Your task to perform on an android device: stop showing notifications on the lock screen Image 0: 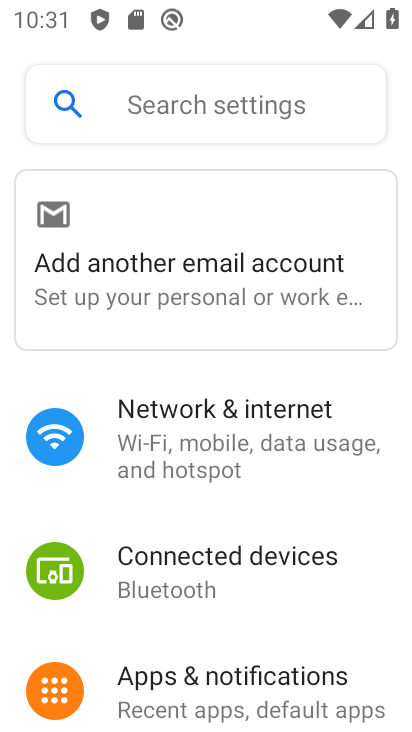
Step 0: drag from (382, 617) to (350, 185)
Your task to perform on an android device: stop showing notifications on the lock screen Image 1: 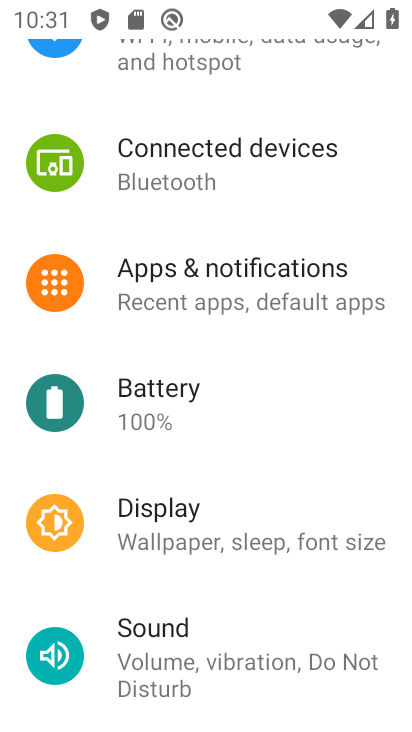
Step 1: drag from (363, 559) to (338, 197)
Your task to perform on an android device: stop showing notifications on the lock screen Image 2: 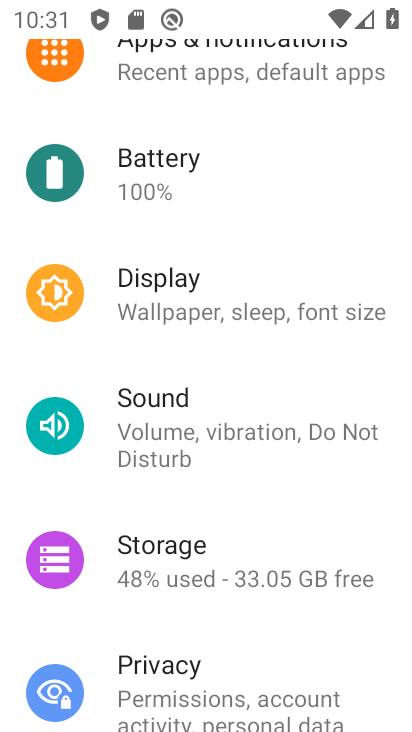
Step 2: drag from (359, 206) to (354, 543)
Your task to perform on an android device: stop showing notifications on the lock screen Image 3: 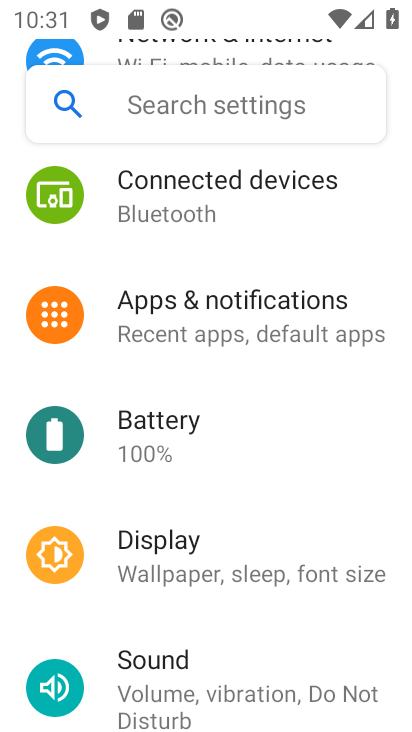
Step 3: click (193, 278)
Your task to perform on an android device: stop showing notifications on the lock screen Image 4: 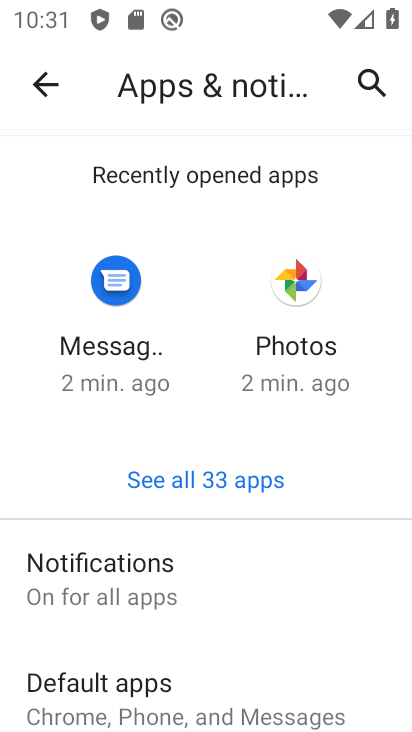
Step 4: click (136, 587)
Your task to perform on an android device: stop showing notifications on the lock screen Image 5: 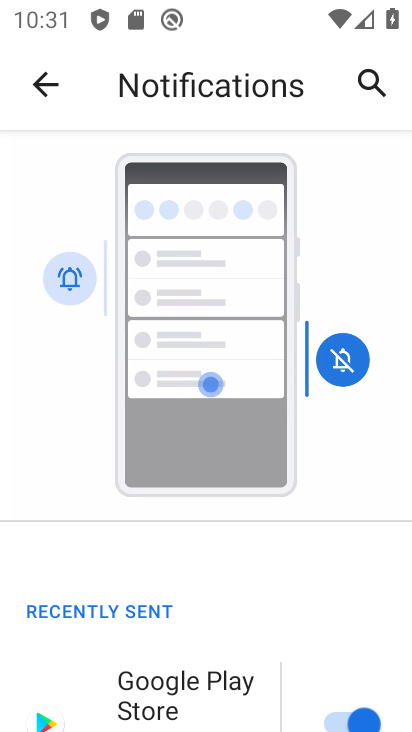
Step 5: drag from (273, 549) to (323, 137)
Your task to perform on an android device: stop showing notifications on the lock screen Image 6: 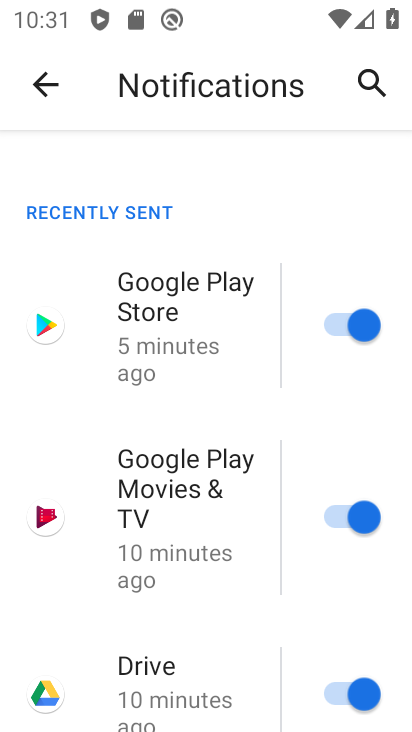
Step 6: drag from (259, 547) to (298, 173)
Your task to perform on an android device: stop showing notifications on the lock screen Image 7: 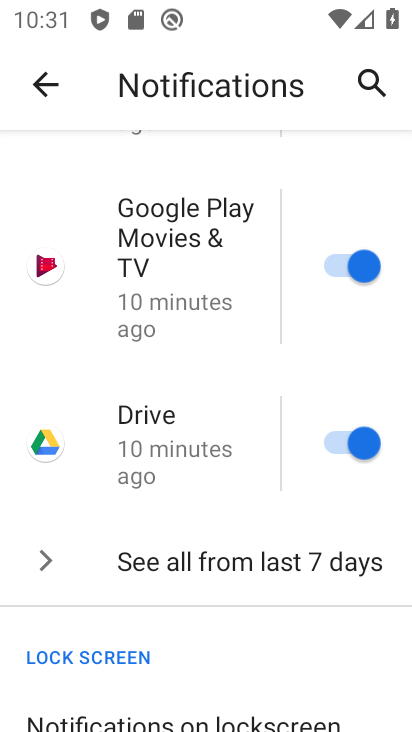
Step 7: drag from (263, 664) to (300, 131)
Your task to perform on an android device: stop showing notifications on the lock screen Image 8: 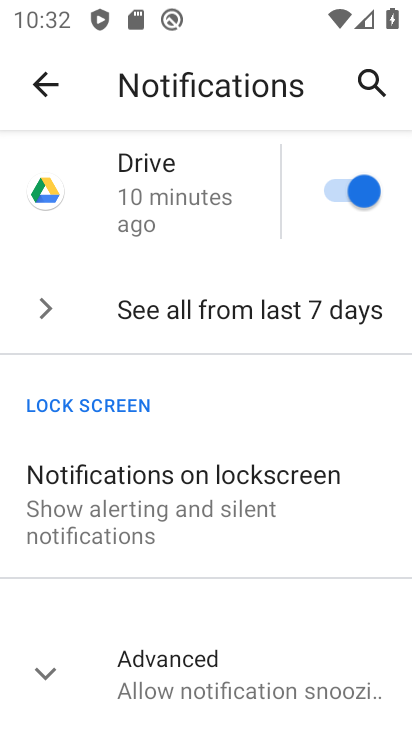
Step 8: click (230, 470)
Your task to perform on an android device: stop showing notifications on the lock screen Image 9: 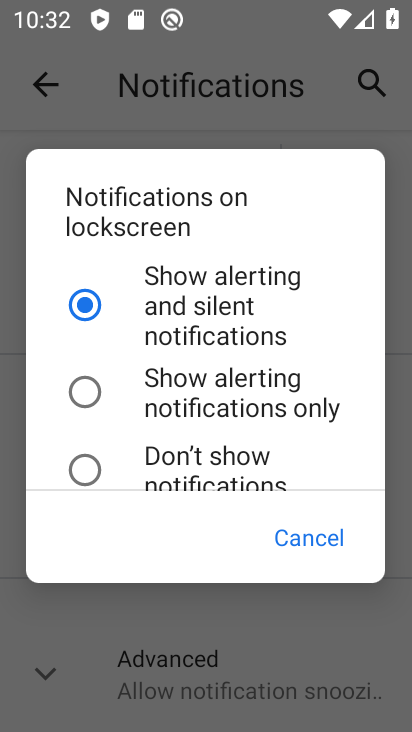
Step 9: click (205, 468)
Your task to perform on an android device: stop showing notifications on the lock screen Image 10: 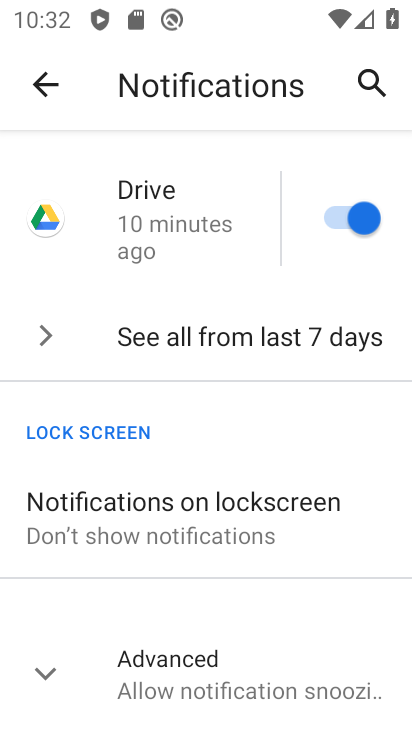
Step 10: task complete